Your task to perform on an android device: Go to Yahoo.com Image 0: 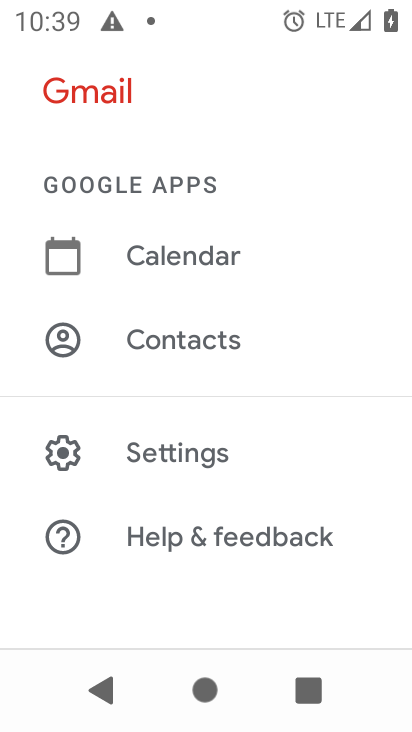
Step 0: press home button
Your task to perform on an android device: Go to Yahoo.com Image 1: 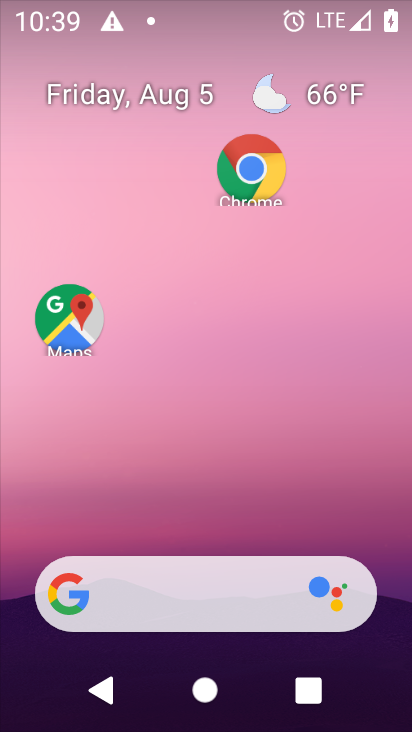
Step 1: click (246, 197)
Your task to perform on an android device: Go to Yahoo.com Image 2: 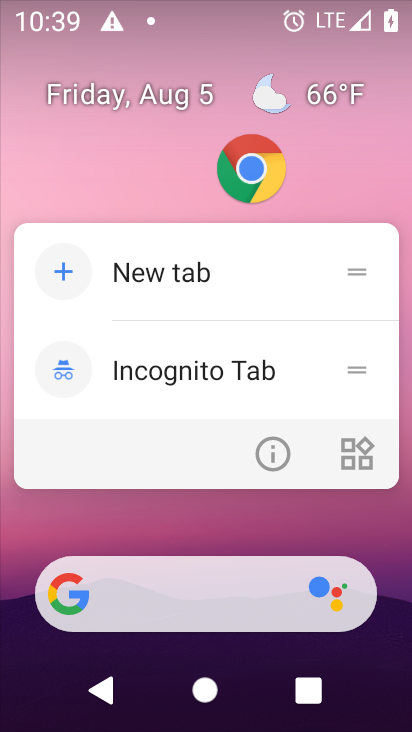
Step 2: click (246, 197)
Your task to perform on an android device: Go to Yahoo.com Image 3: 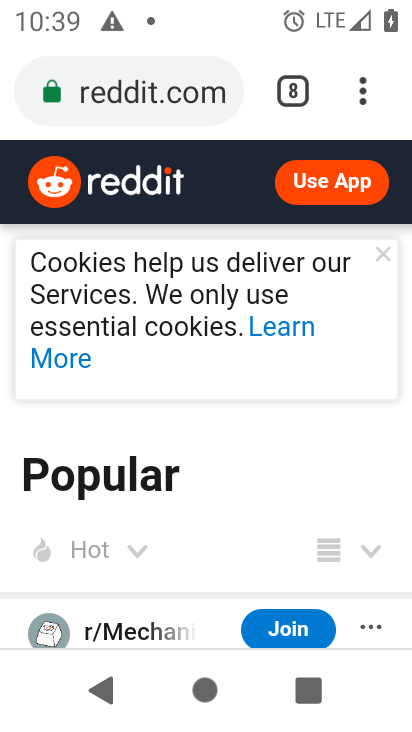
Step 3: click (287, 91)
Your task to perform on an android device: Go to Yahoo.com Image 4: 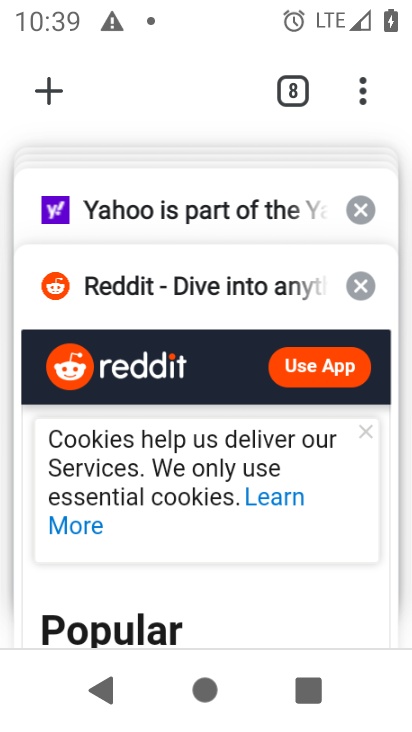
Step 4: click (120, 197)
Your task to perform on an android device: Go to Yahoo.com Image 5: 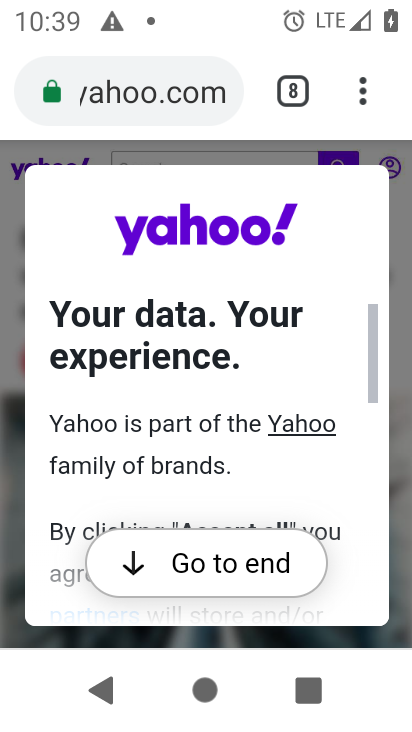
Step 5: task complete